Your task to perform on an android device: Is it going to rain tomorrow? Image 0: 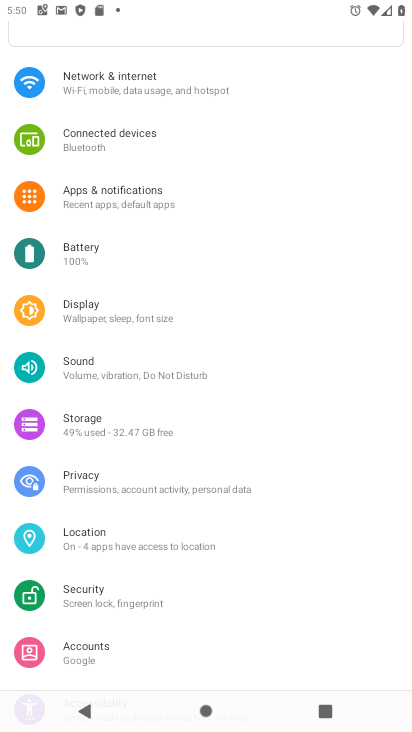
Step 0: press home button
Your task to perform on an android device: Is it going to rain tomorrow? Image 1: 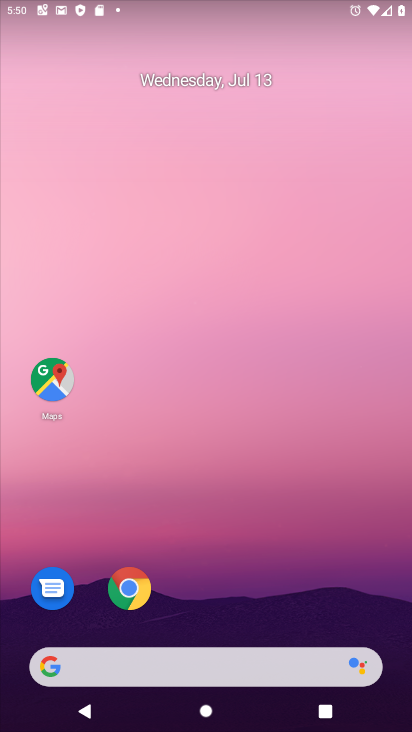
Step 1: click (170, 134)
Your task to perform on an android device: Is it going to rain tomorrow? Image 2: 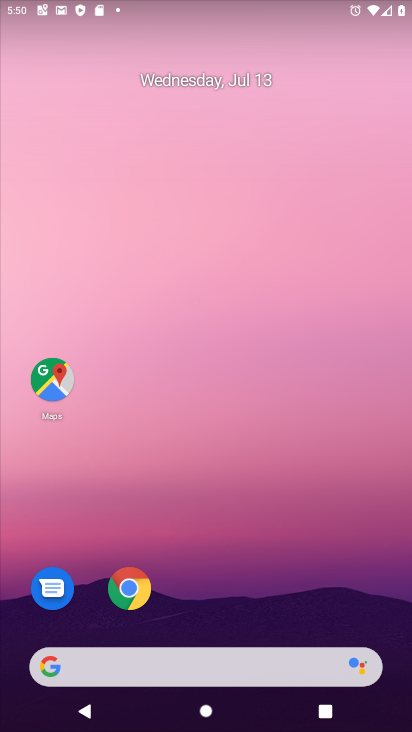
Step 2: click (161, 668)
Your task to perform on an android device: Is it going to rain tomorrow? Image 3: 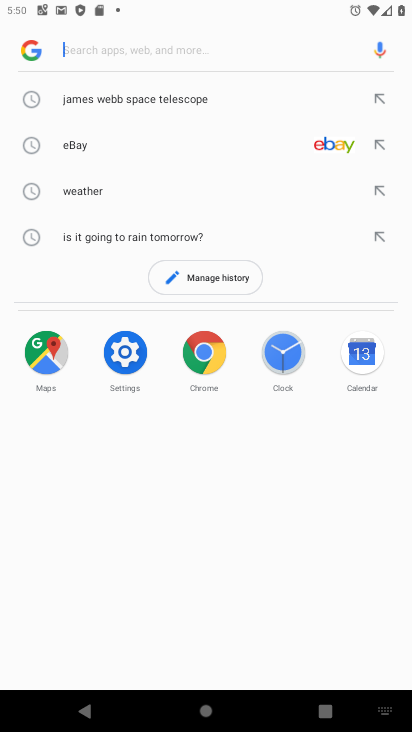
Step 3: click (97, 198)
Your task to perform on an android device: Is it going to rain tomorrow? Image 4: 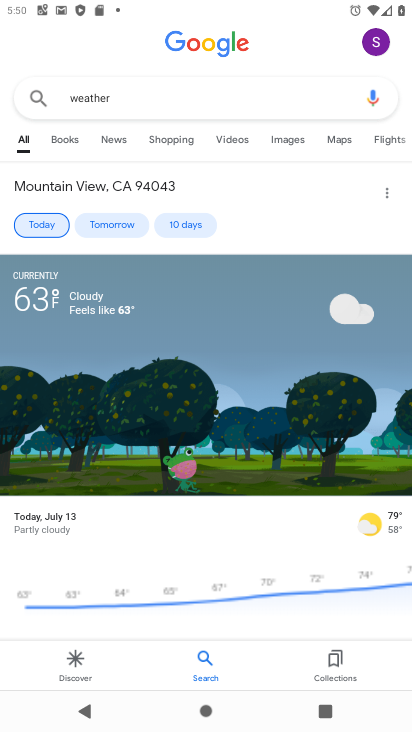
Step 4: click (100, 217)
Your task to perform on an android device: Is it going to rain tomorrow? Image 5: 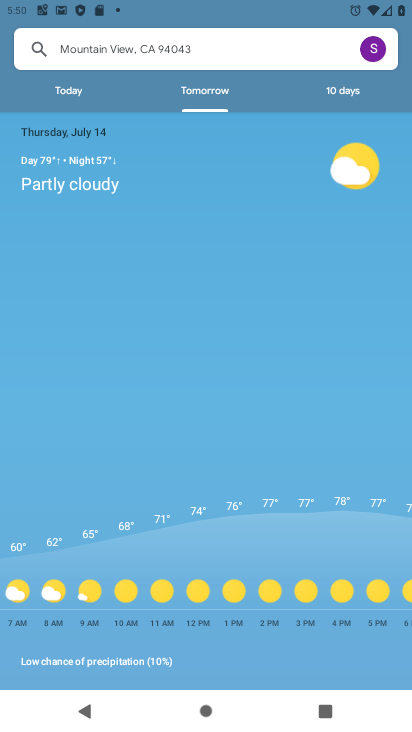
Step 5: task complete